Your task to perform on an android device: Add "apple airpods pro" to the cart on target.com Image 0: 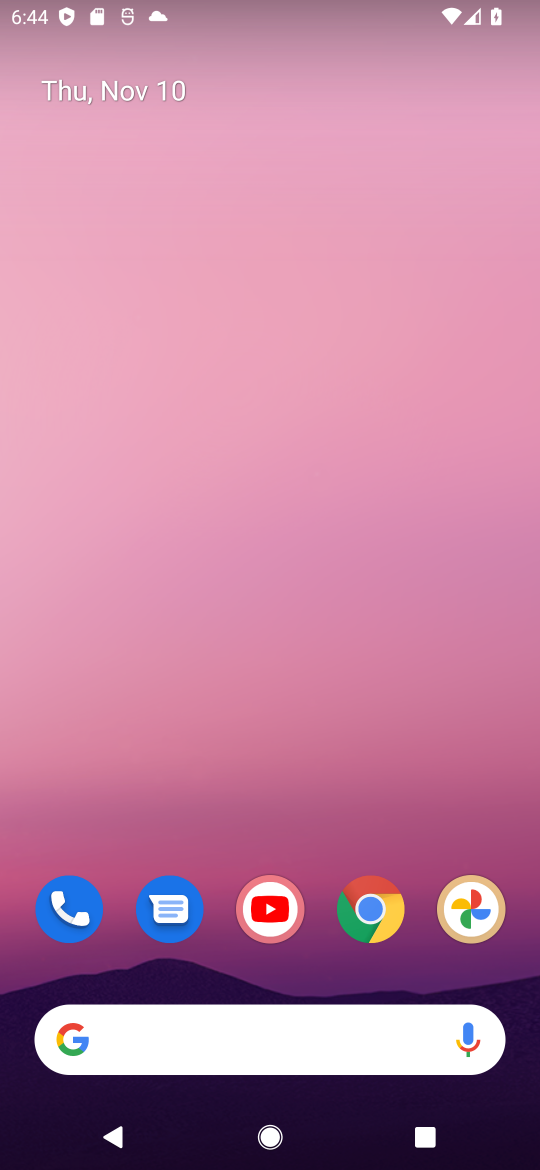
Step 0: drag from (289, 1059) to (268, 336)
Your task to perform on an android device: Add "apple airpods pro" to the cart on target.com Image 1: 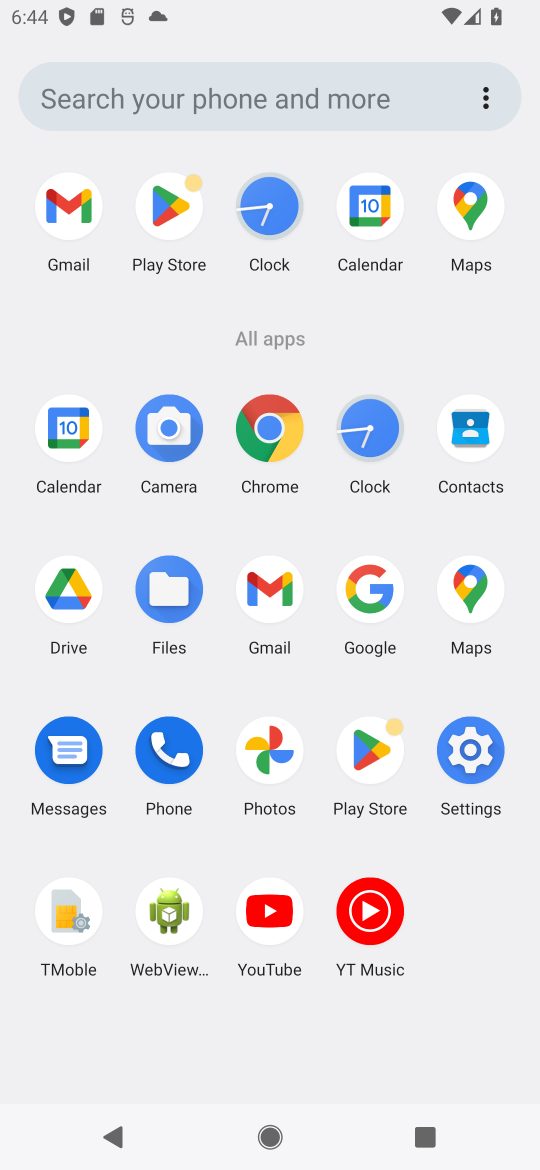
Step 1: click (367, 584)
Your task to perform on an android device: Add "apple airpods pro" to the cart on target.com Image 2: 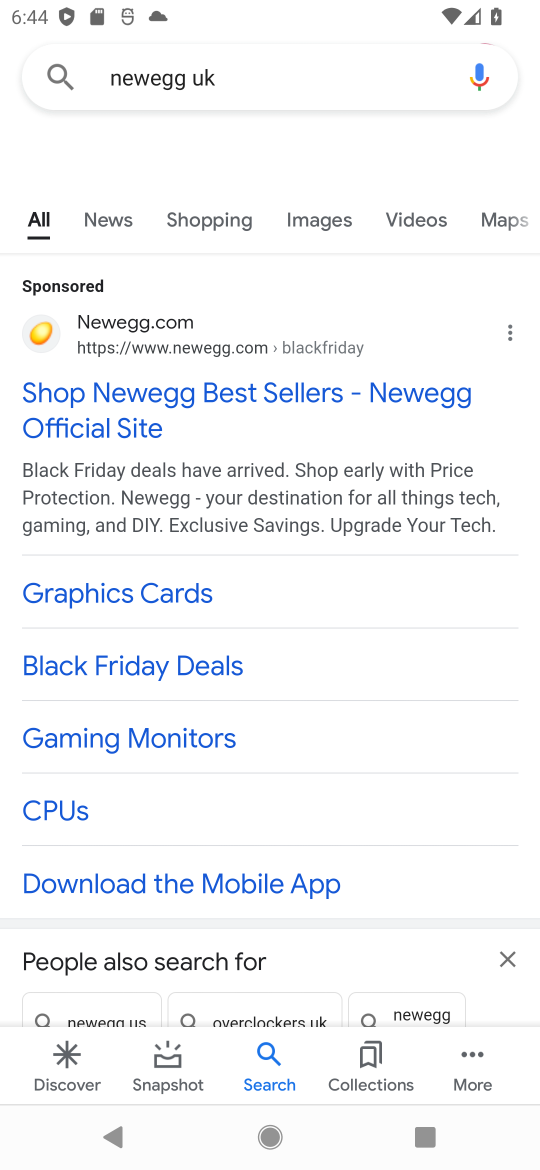
Step 2: click (232, 61)
Your task to perform on an android device: Add "apple airpods pro" to the cart on target.com Image 3: 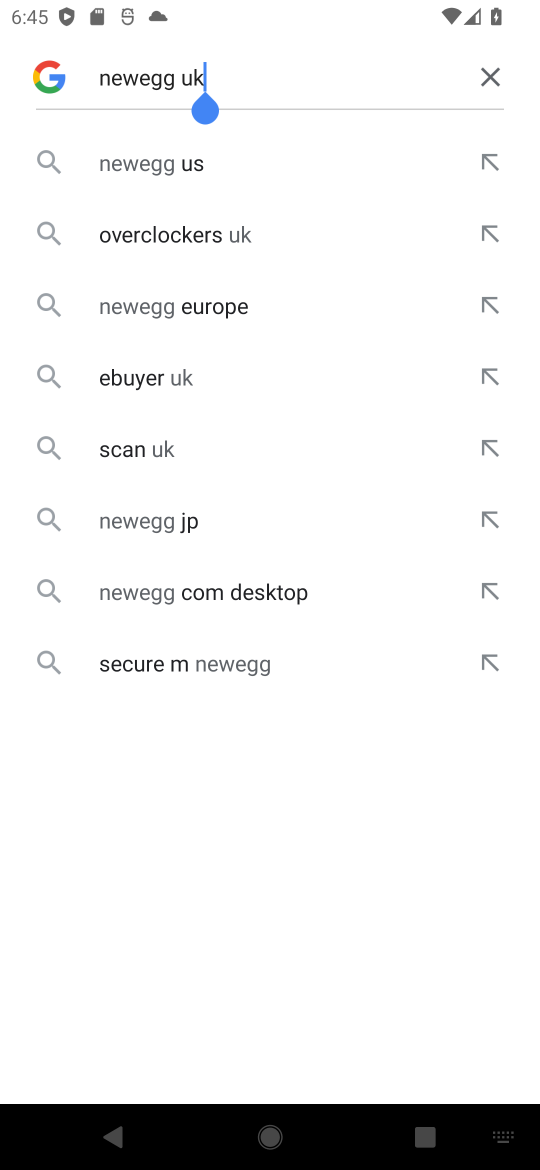
Step 3: click (503, 75)
Your task to perform on an android device: Add "apple airpods pro" to the cart on target.com Image 4: 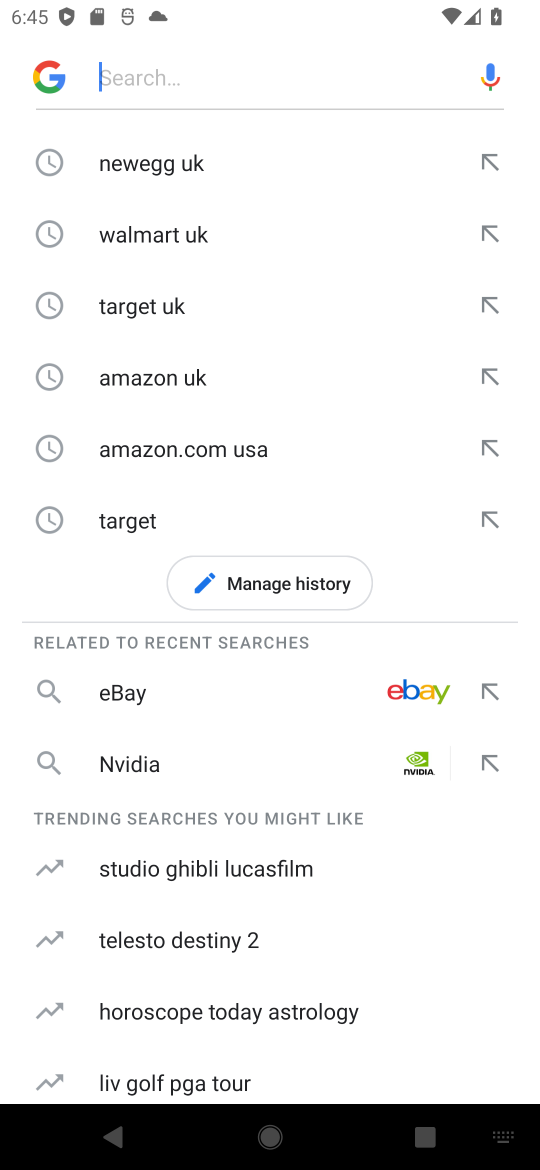
Step 4: click (122, 308)
Your task to perform on an android device: Add "apple airpods pro" to the cart on target.com Image 5: 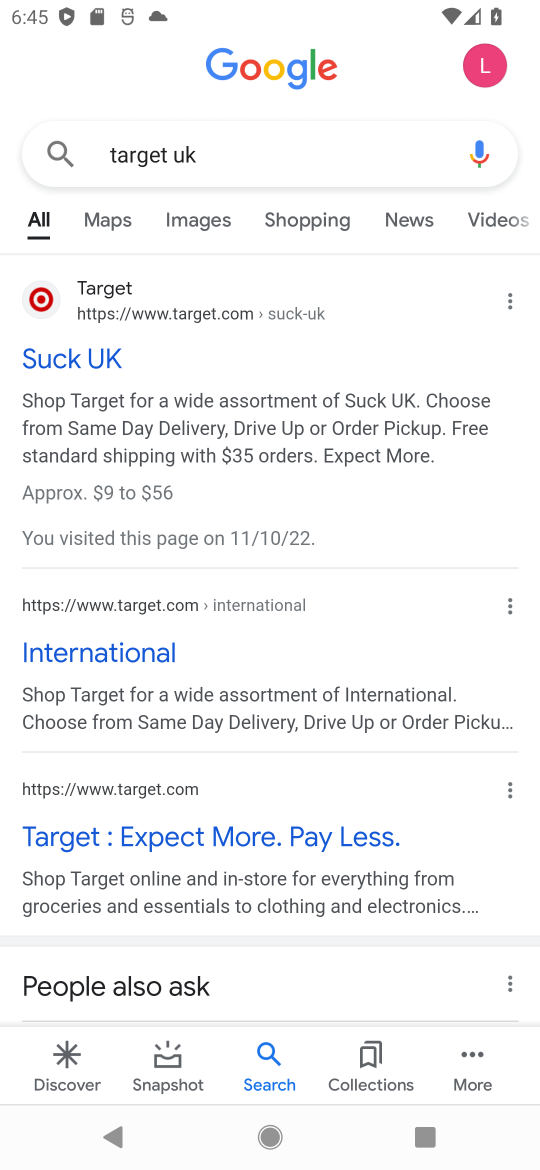
Step 5: click (42, 291)
Your task to perform on an android device: Add "apple airpods pro" to the cart on target.com Image 6: 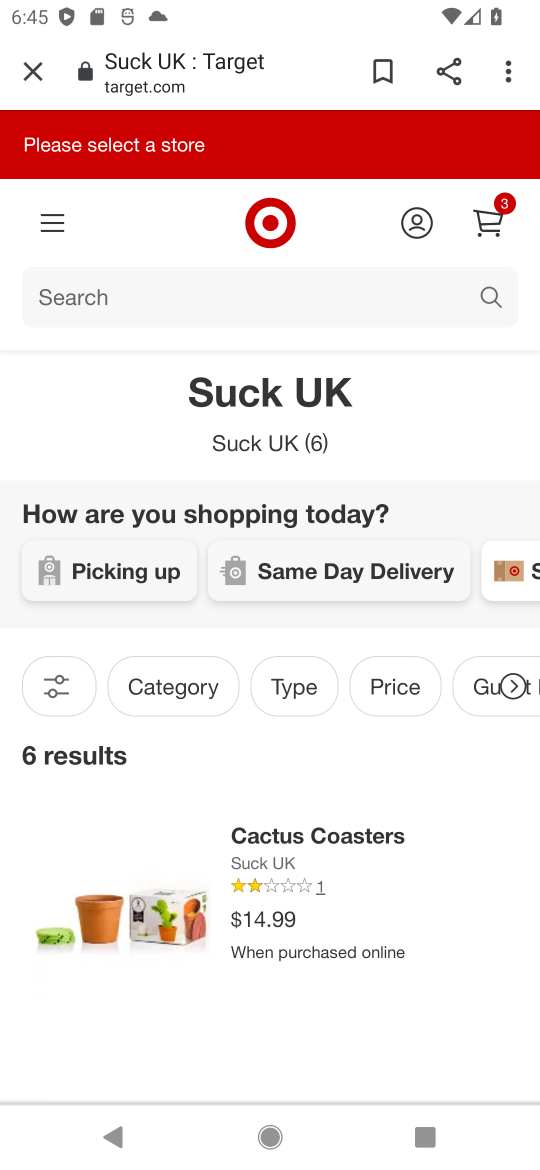
Step 6: click (238, 281)
Your task to perform on an android device: Add "apple airpods pro" to the cart on target.com Image 7: 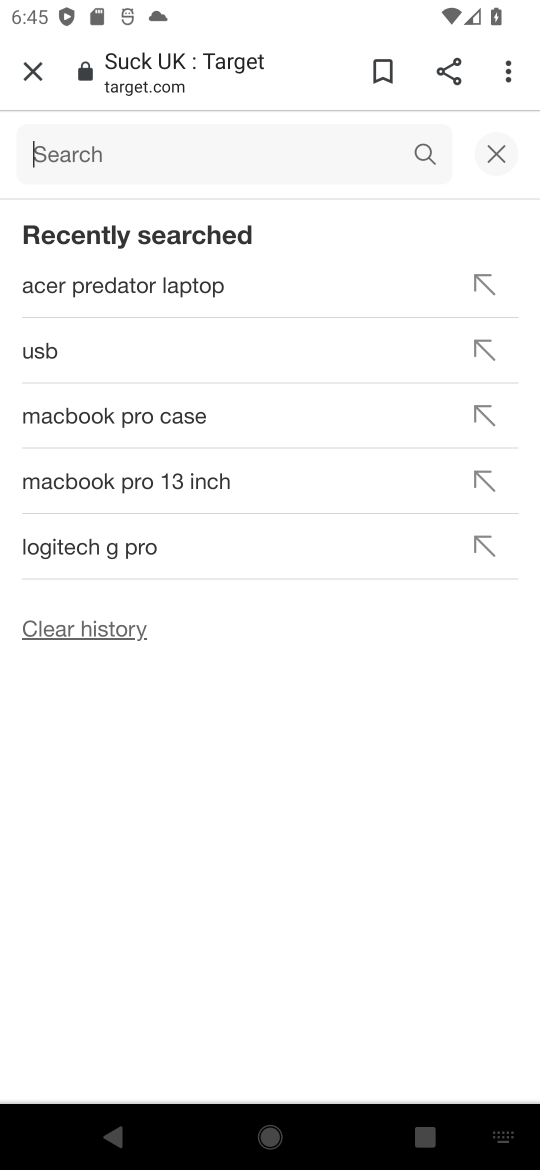
Step 7: type "apple airpods pro "
Your task to perform on an android device: Add "apple airpods pro" to the cart on target.com Image 8: 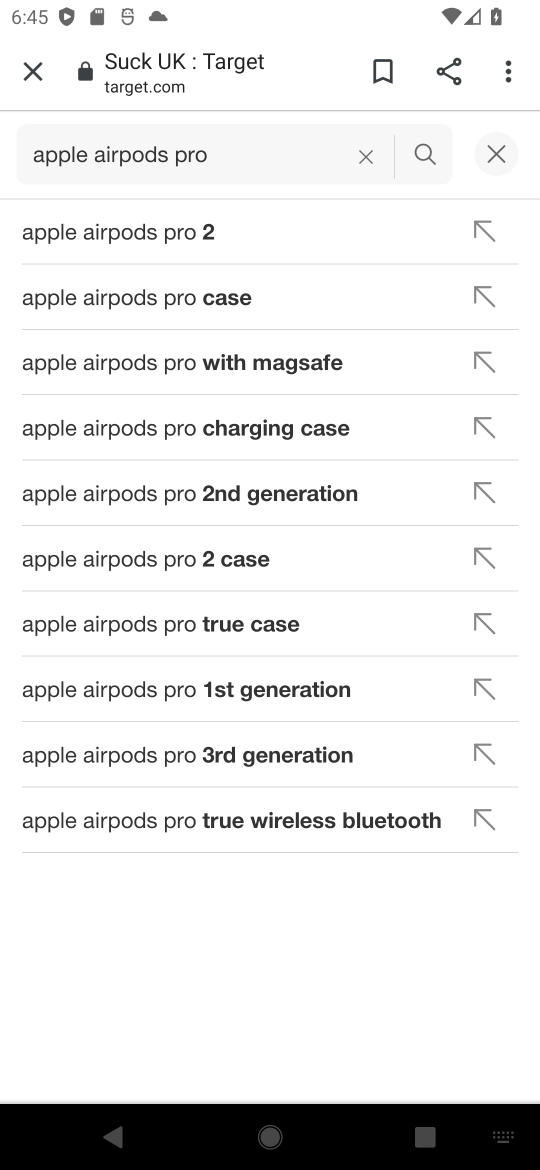
Step 8: click (111, 212)
Your task to perform on an android device: Add "apple airpods pro" to the cart on target.com Image 9: 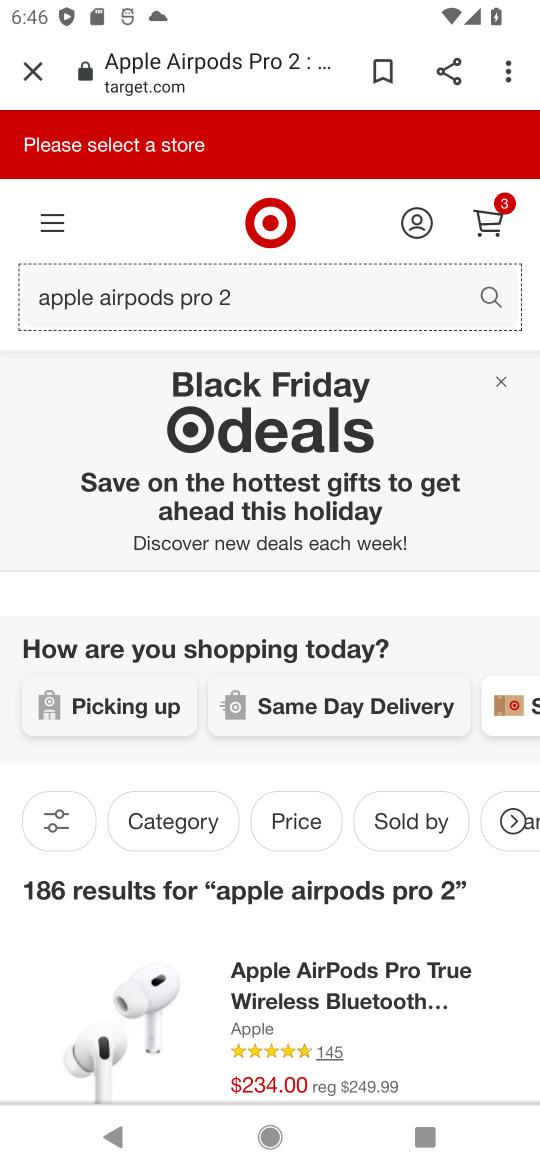
Step 9: drag from (189, 992) to (330, 330)
Your task to perform on an android device: Add "apple airpods pro" to the cart on target.com Image 10: 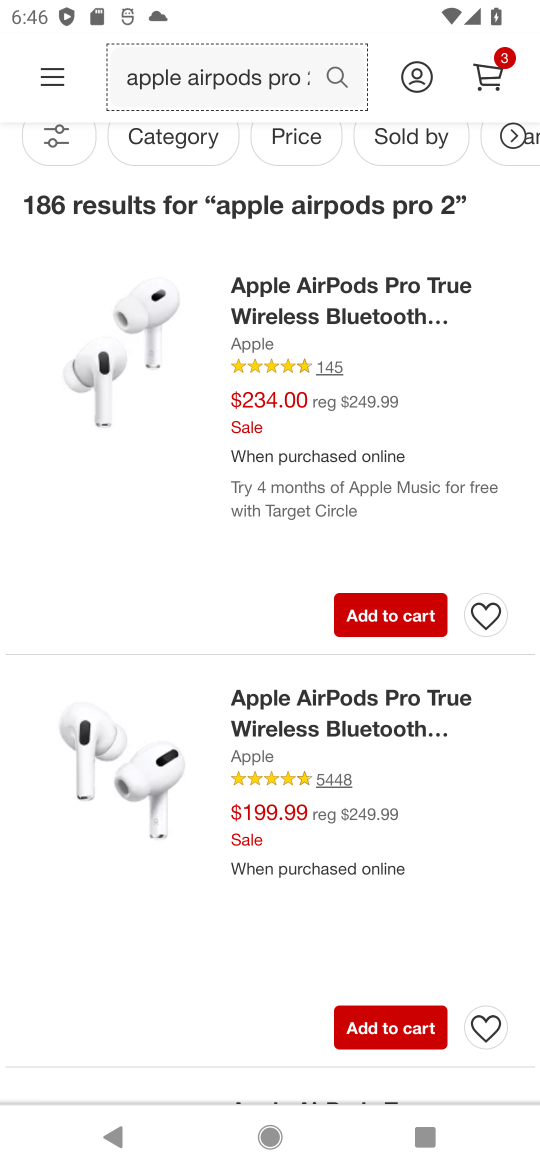
Step 10: click (376, 606)
Your task to perform on an android device: Add "apple airpods pro" to the cart on target.com Image 11: 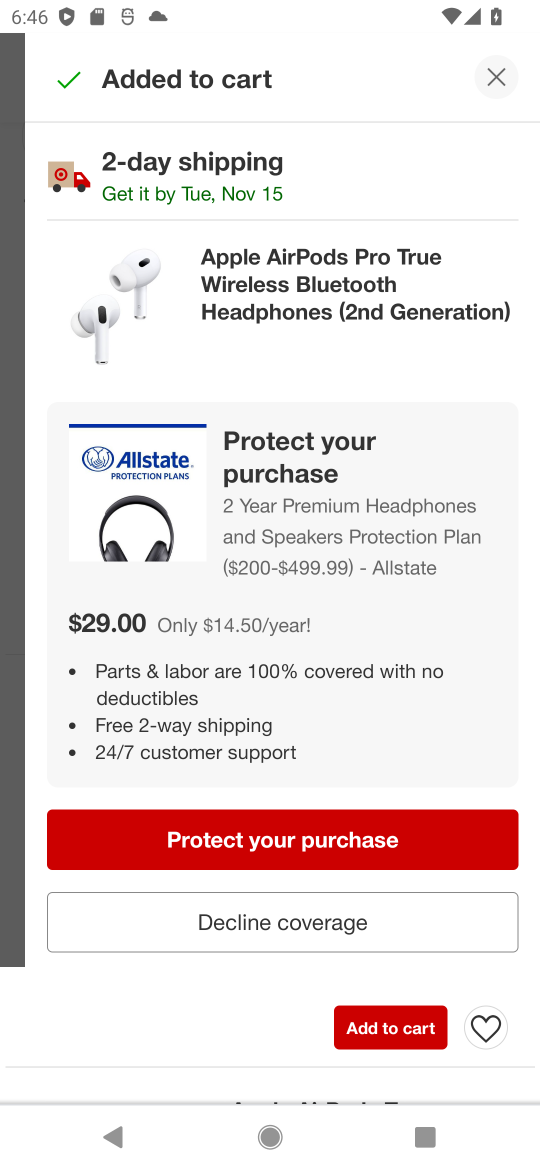
Step 11: click (382, 1033)
Your task to perform on an android device: Add "apple airpods pro" to the cart on target.com Image 12: 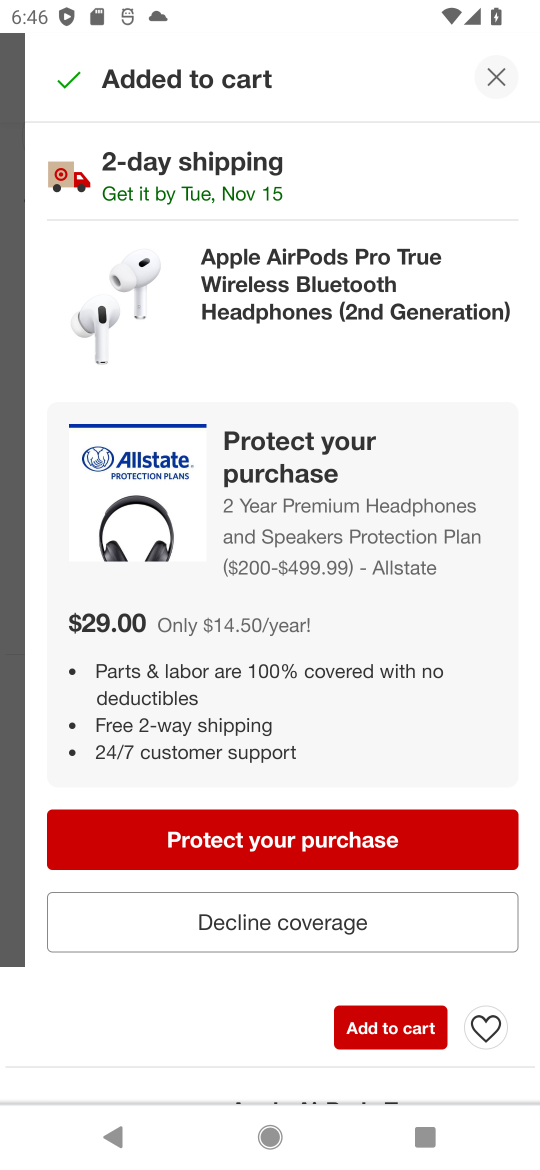
Step 12: click (399, 1021)
Your task to perform on an android device: Add "apple airpods pro" to the cart on target.com Image 13: 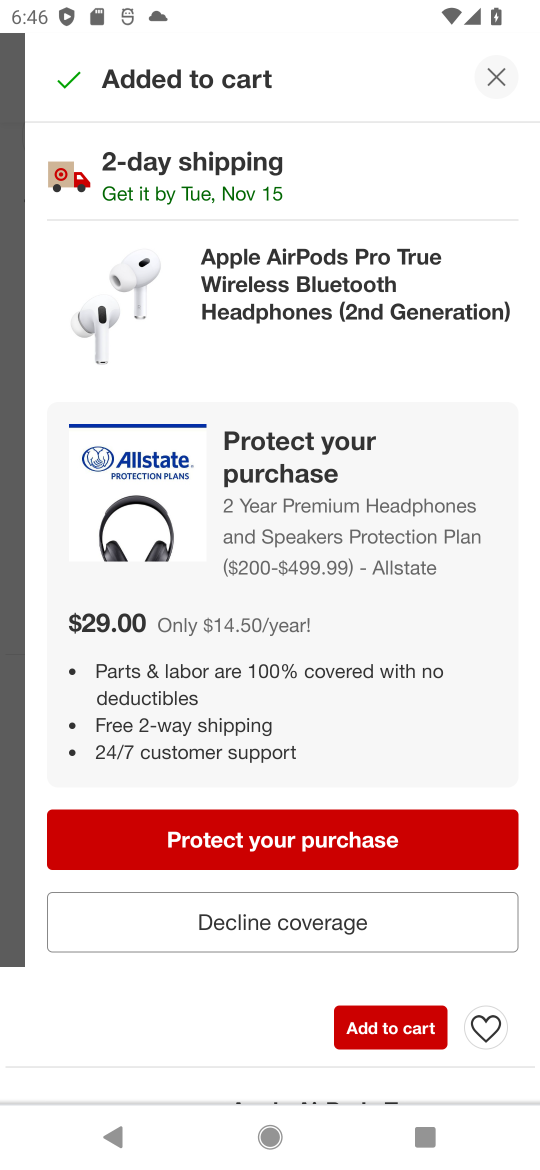
Step 13: task complete